Your task to perform on an android device: set an alarm Image 0: 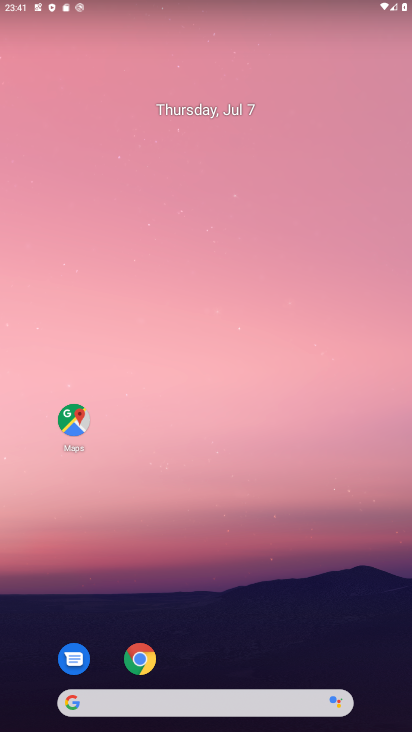
Step 0: drag from (214, 669) to (286, 18)
Your task to perform on an android device: set an alarm Image 1: 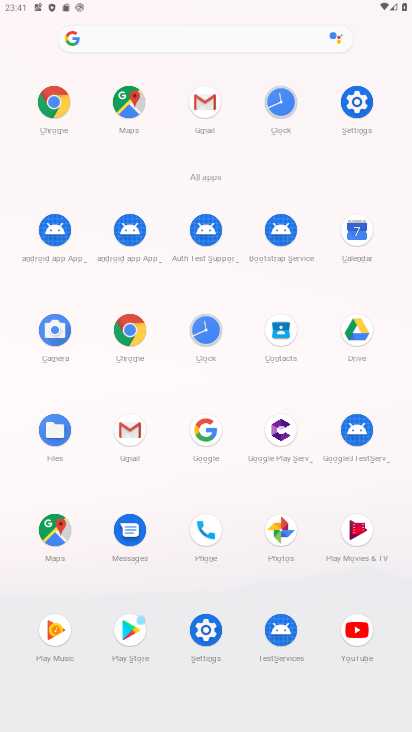
Step 1: click (284, 108)
Your task to perform on an android device: set an alarm Image 2: 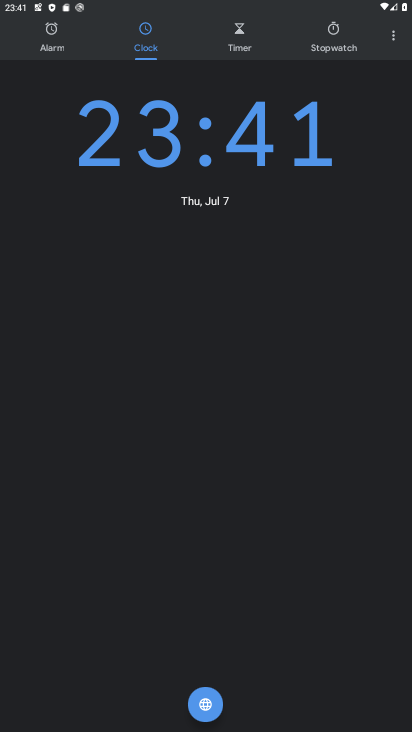
Step 2: click (65, 34)
Your task to perform on an android device: set an alarm Image 3: 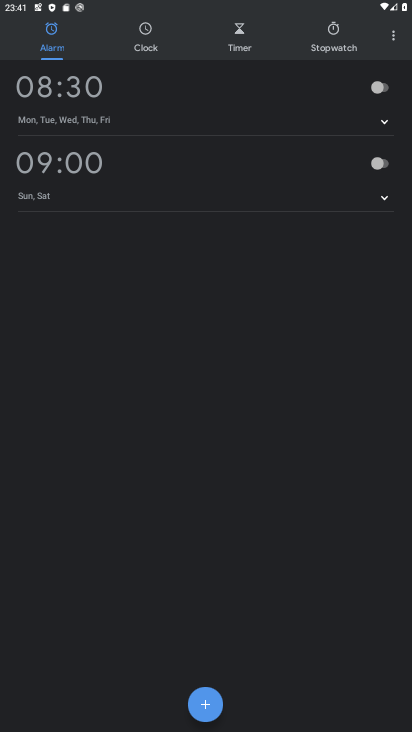
Step 3: click (388, 94)
Your task to perform on an android device: set an alarm Image 4: 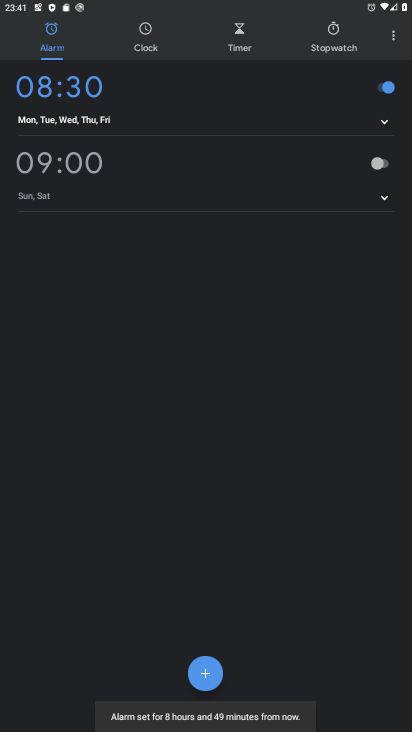
Step 4: task complete